Your task to perform on an android device: Show me recent news Image 0: 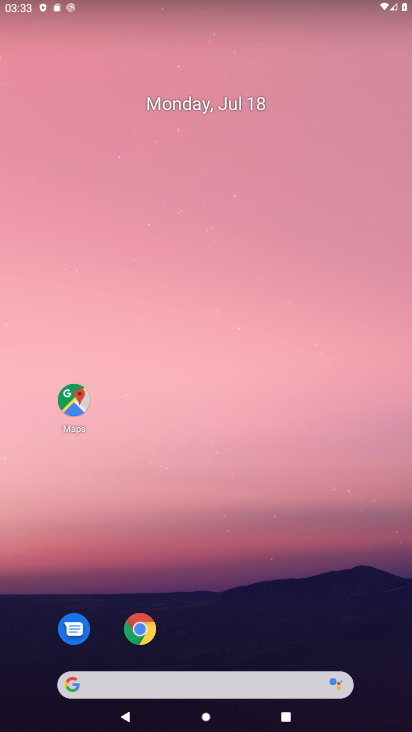
Step 0: click (254, 245)
Your task to perform on an android device: Show me recent news Image 1: 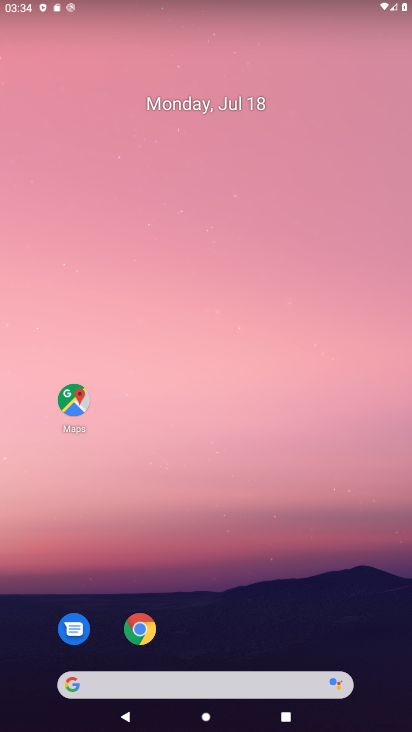
Step 1: task complete